Your task to perform on an android device: change notifications settings Image 0: 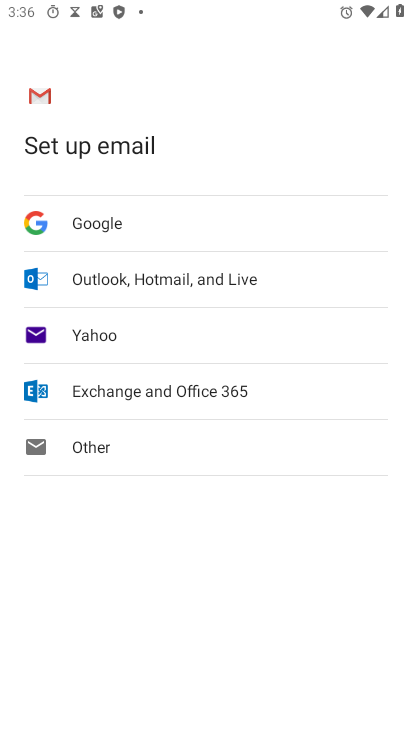
Step 0: press home button
Your task to perform on an android device: change notifications settings Image 1: 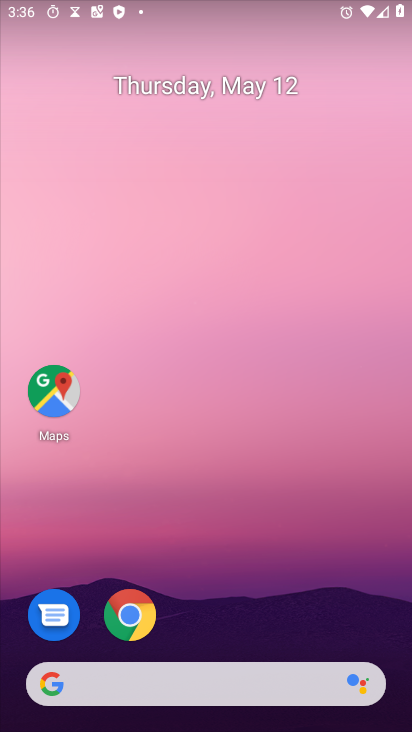
Step 1: drag from (65, 639) to (322, 235)
Your task to perform on an android device: change notifications settings Image 2: 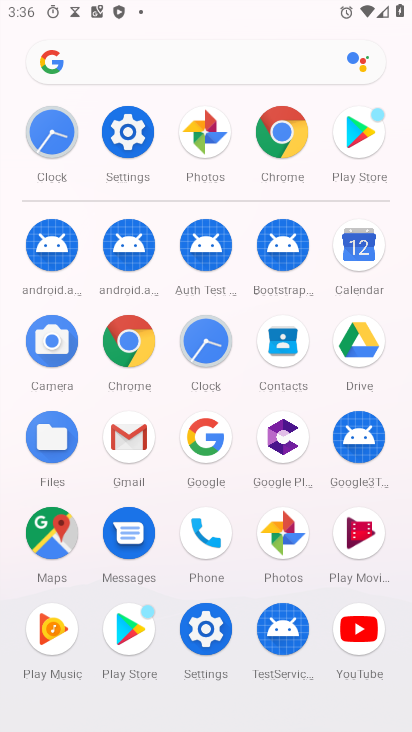
Step 2: click (147, 140)
Your task to perform on an android device: change notifications settings Image 3: 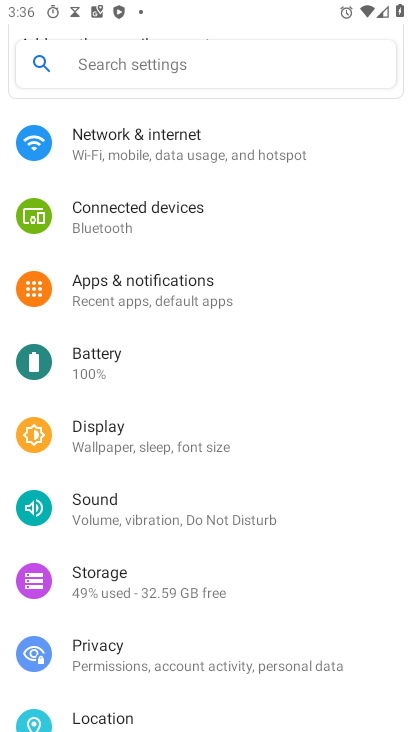
Step 3: click (147, 281)
Your task to perform on an android device: change notifications settings Image 4: 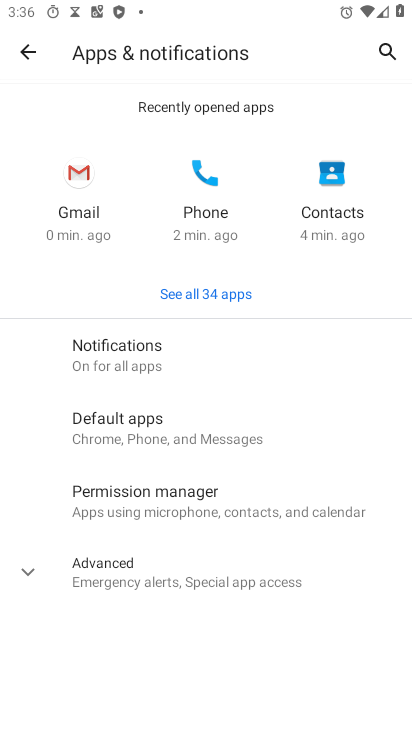
Step 4: click (89, 321)
Your task to perform on an android device: change notifications settings Image 5: 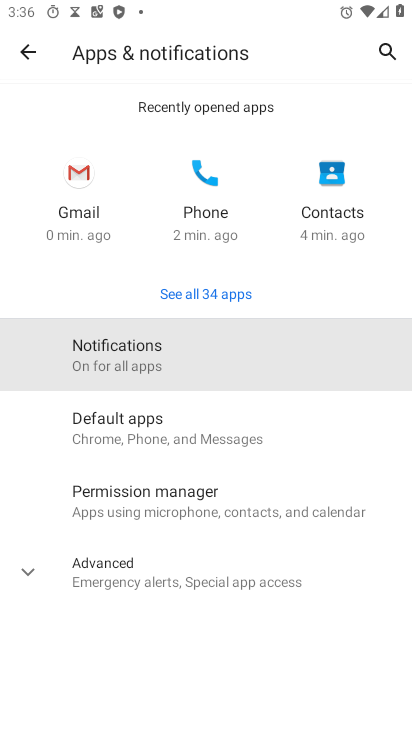
Step 5: click (75, 338)
Your task to perform on an android device: change notifications settings Image 6: 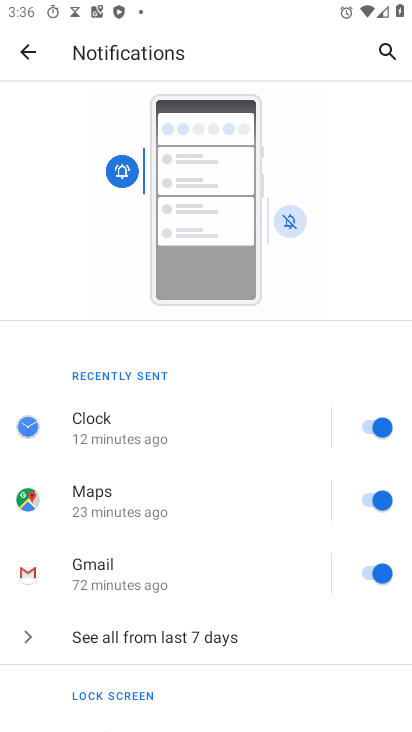
Step 6: click (375, 433)
Your task to perform on an android device: change notifications settings Image 7: 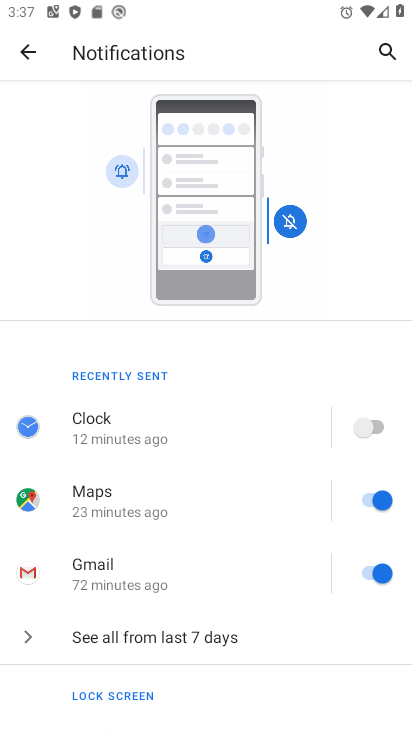
Step 7: task complete